Your task to perform on an android device: find photos in the google photos app Image 0: 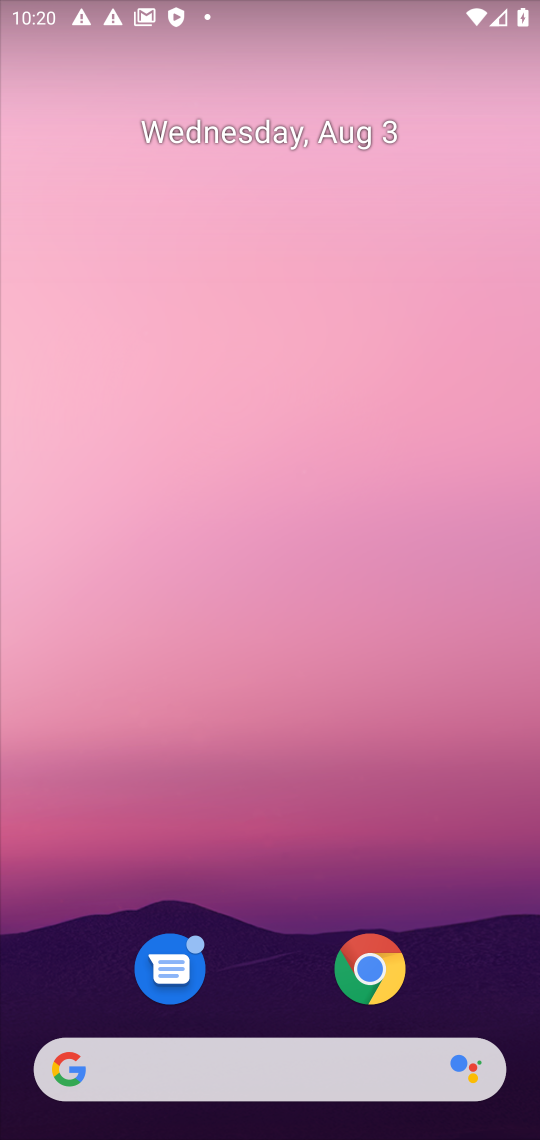
Step 0: drag from (300, 950) to (283, 105)
Your task to perform on an android device: find photos in the google photos app Image 1: 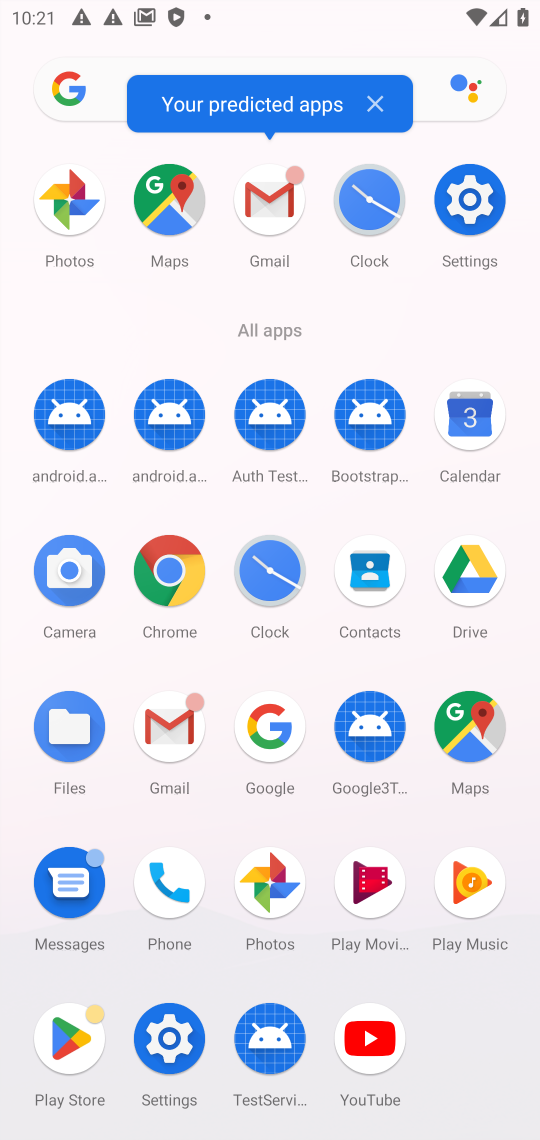
Step 1: click (265, 902)
Your task to perform on an android device: find photos in the google photos app Image 2: 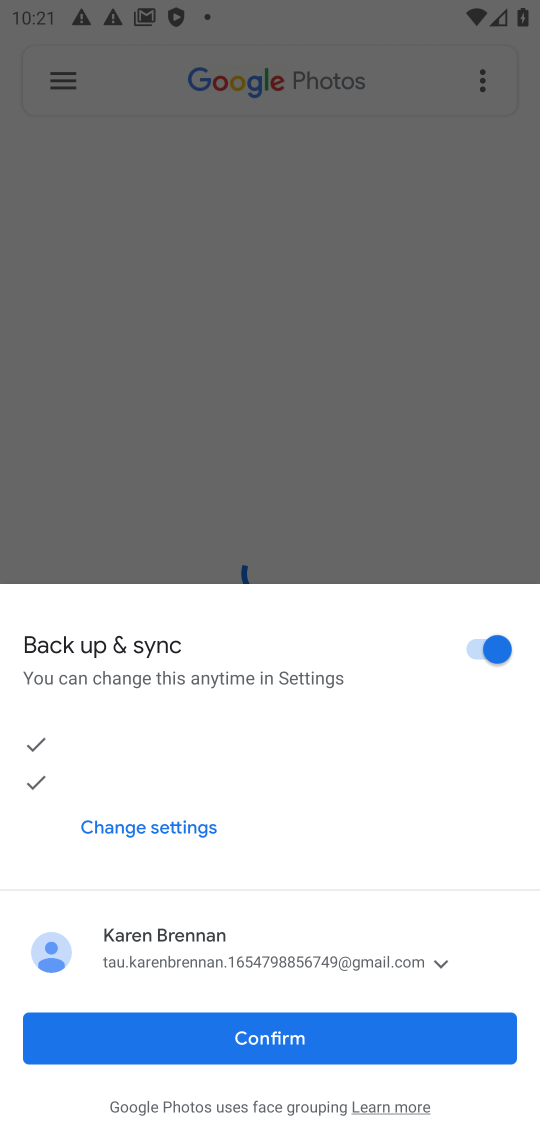
Step 2: click (283, 1027)
Your task to perform on an android device: find photos in the google photos app Image 3: 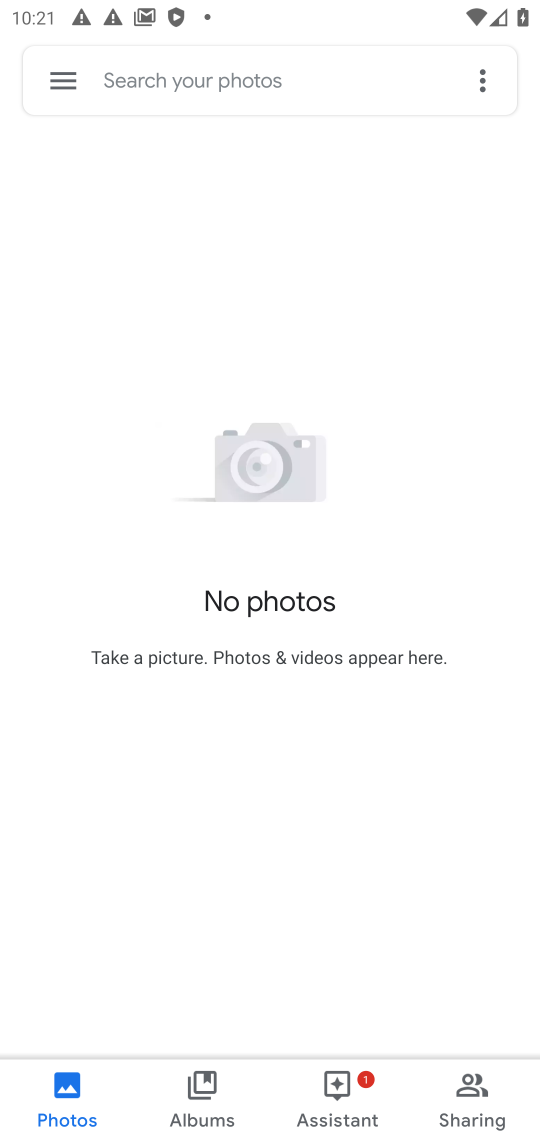
Step 3: task complete